Your task to perform on an android device: open chrome privacy settings Image 0: 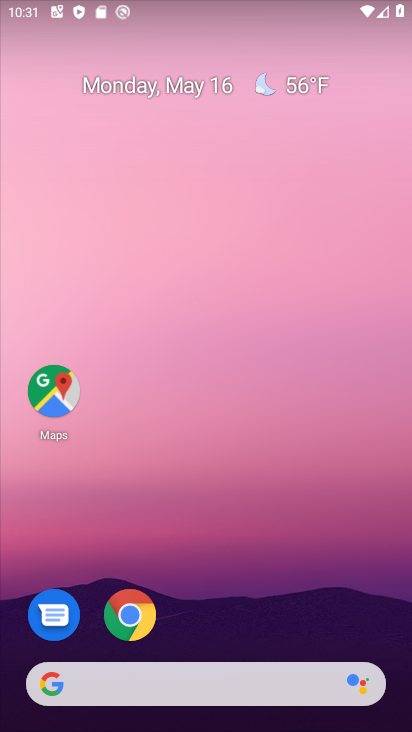
Step 0: drag from (216, 697) to (247, 127)
Your task to perform on an android device: open chrome privacy settings Image 1: 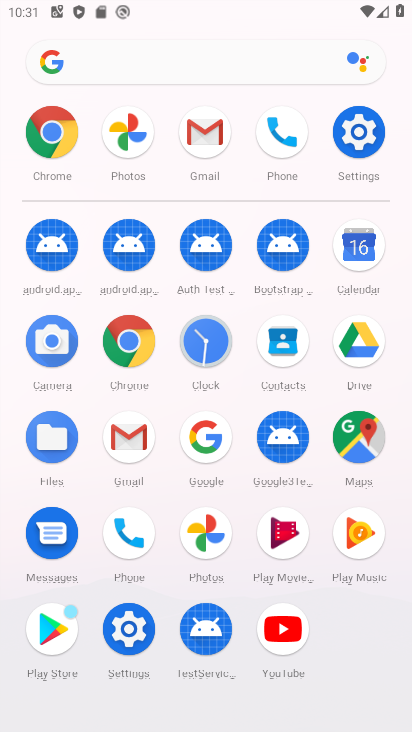
Step 1: click (130, 349)
Your task to perform on an android device: open chrome privacy settings Image 2: 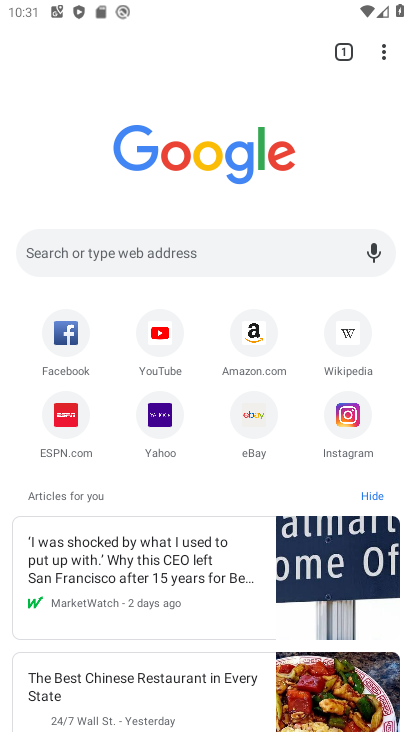
Step 2: click (382, 64)
Your task to perform on an android device: open chrome privacy settings Image 3: 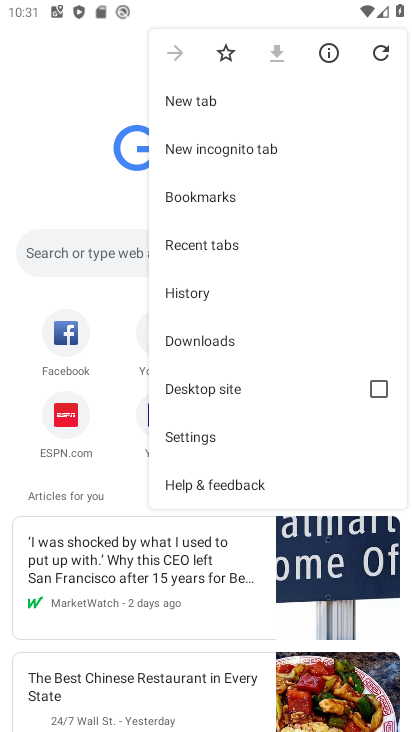
Step 3: click (218, 436)
Your task to perform on an android device: open chrome privacy settings Image 4: 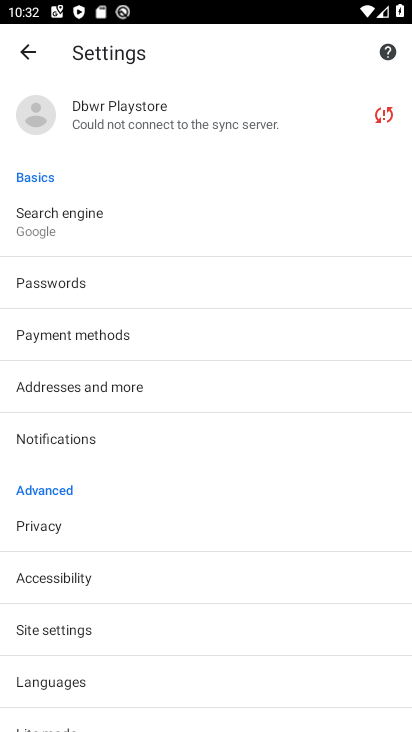
Step 4: click (72, 522)
Your task to perform on an android device: open chrome privacy settings Image 5: 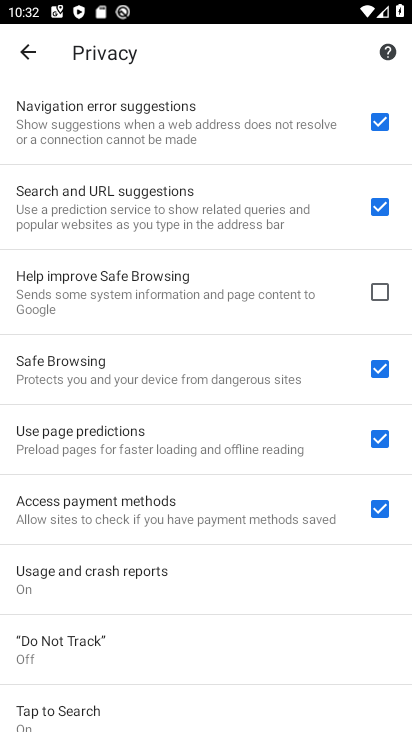
Step 5: task complete